Your task to perform on an android device: open chrome privacy settings Image 0: 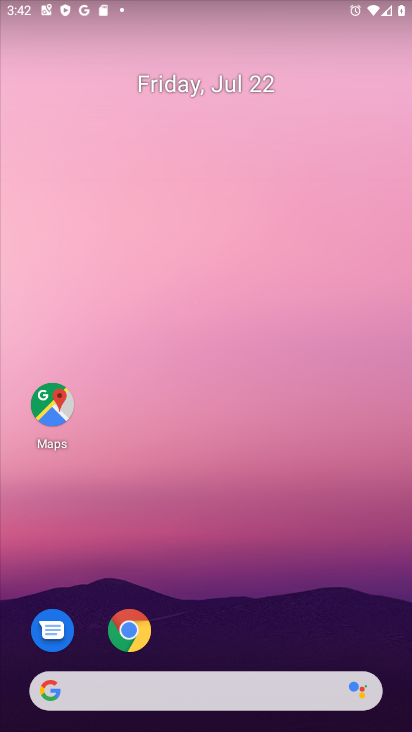
Step 0: click (151, 625)
Your task to perform on an android device: open chrome privacy settings Image 1: 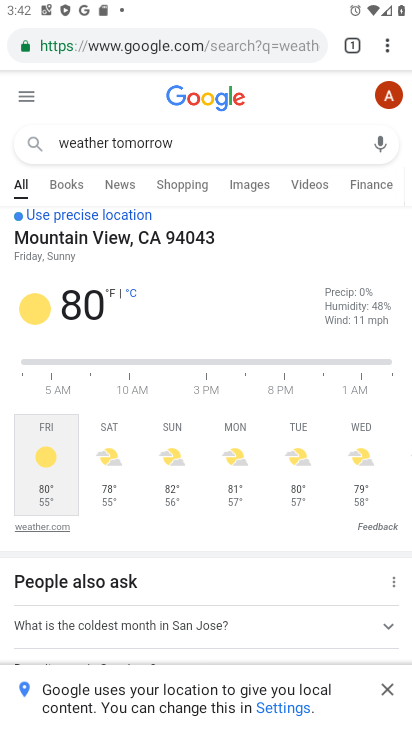
Step 1: drag from (386, 43) to (267, 507)
Your task to perform on an android device: open chrome privacy settings Image 2: 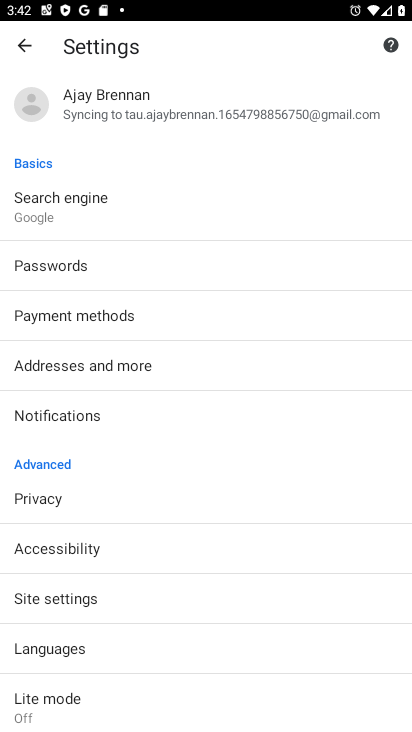
Step 2: click (88, 485)
Your task to perform on an android device: open chrome privacy settings Image 3: 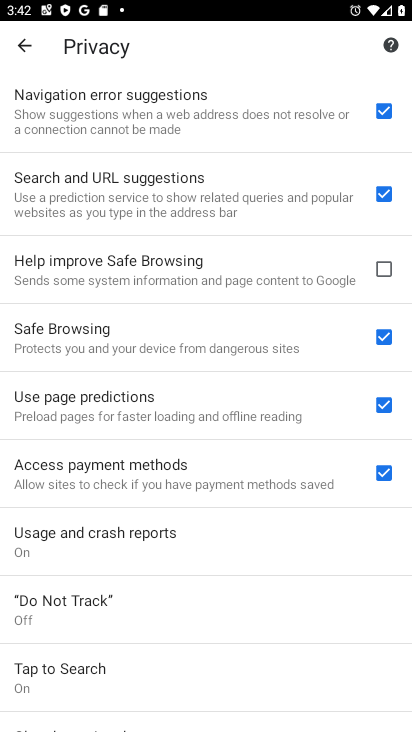
Step 3: task complete